Your task to perform on an android device: Open the Play Movies app and select the watchlist tab. Image 0: 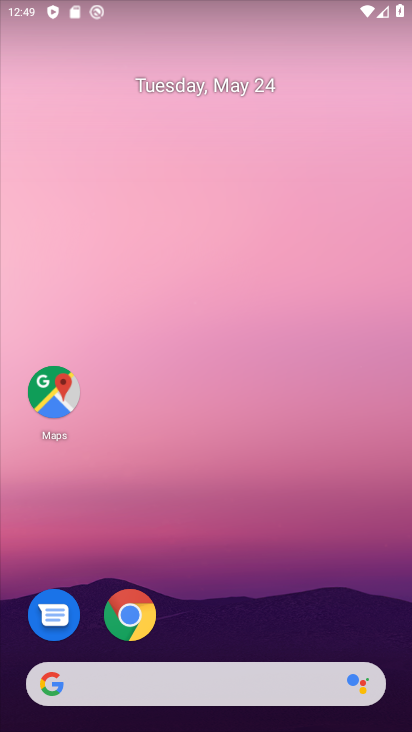
Step 0: drag from (218, 640) to (239, 279)
Your task to perform on an android device: Open the Play Movies app and select the watchlist tab. Image 1: 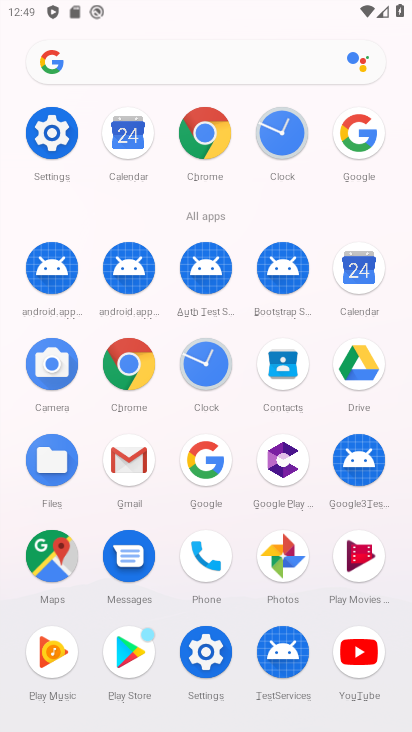
Step 1: click (356, 551)
Your task to perform on an android device: Open the Play Movies app and select the watchlist tab. Image 2: 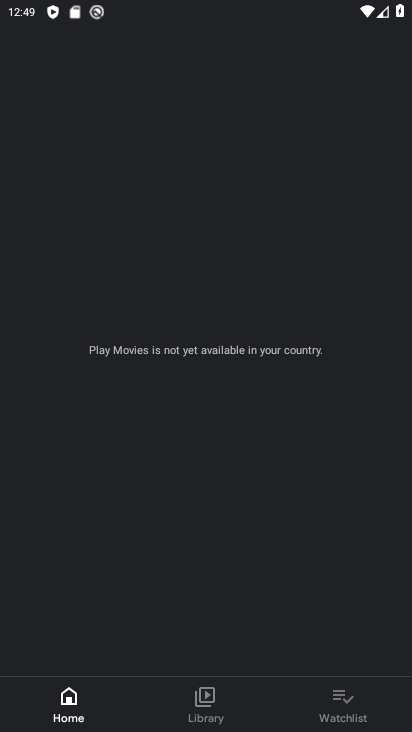
Step 2: click (339, 697)
Your task to perform on an android device: Open the Play Movies app and select the watchlist tab. Image 3: 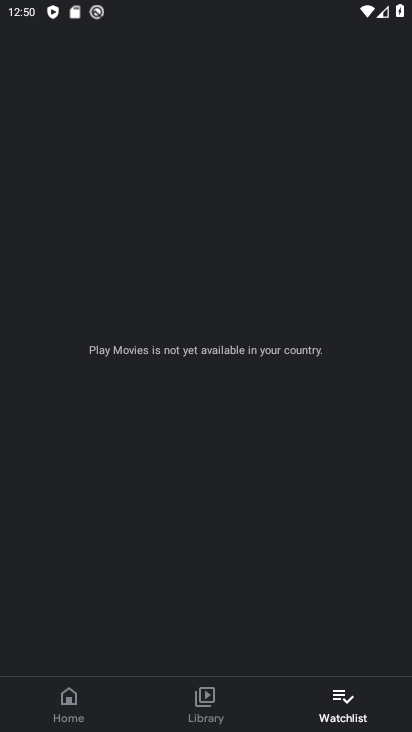
Step 3: task complete